Your task to perform on an android device: open app "Flipkart Online Shopping App" (install if not already installed) and enter user name: "fostered@gmail.com" and password: "negotiated" Image 0: 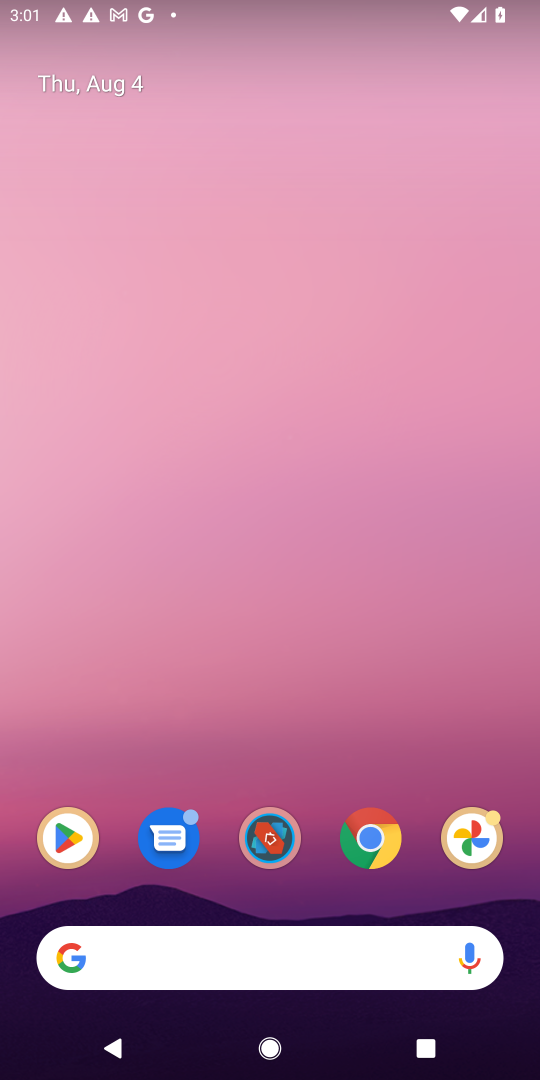
Step 0: click (71, 843)
Your task to perform on an android device: open app "Flipkart Online Shopping App" (install if not already installed) and enter user name: "fostered@gmail.com" and password: "negotiated" Image 1: 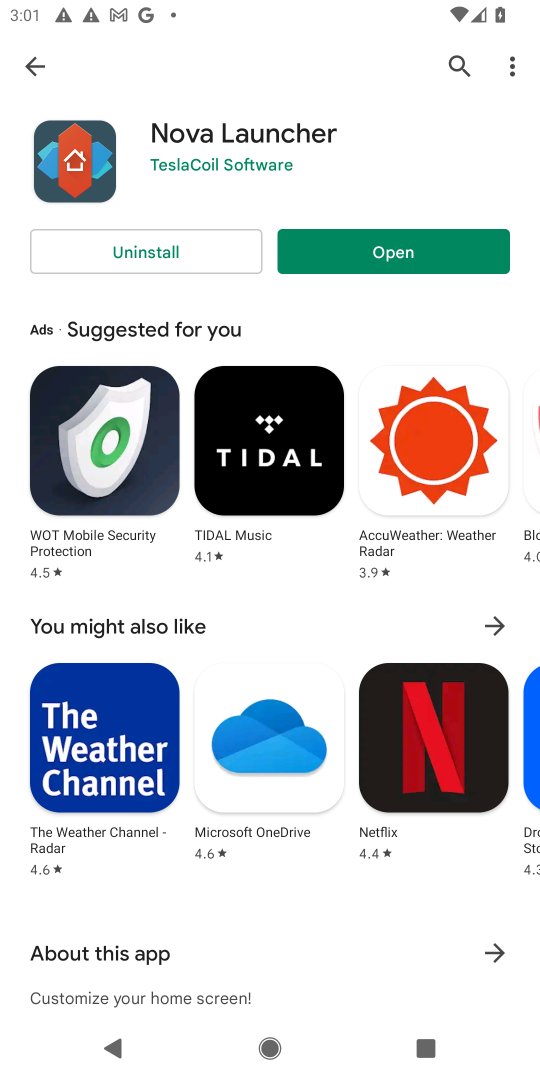
Step 1: click (446, 56)
Your task to perform on an android device: open app "Flipkart Online Shopping App" (install if not already installed) and enter user name: "fostered@gmail.com" and password: "negotiated" Image 2: 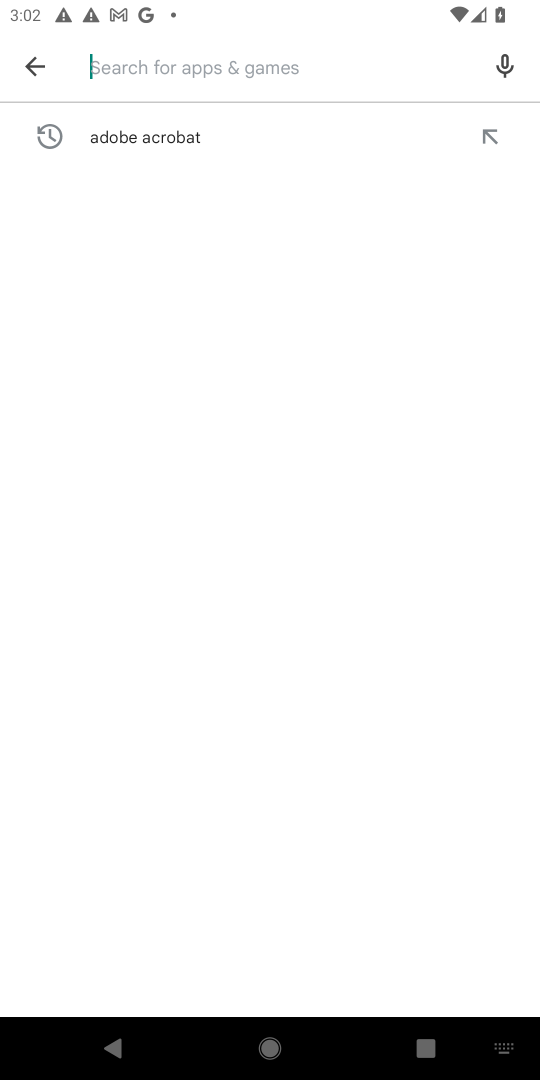
Step 2: type "flipkart"
Your task to perform on an android device: open app "Flipkart Online Shopping App" (install if not already installed) and enter user name: "fostered@gmail.com" and password: "negotiated" Image 3: 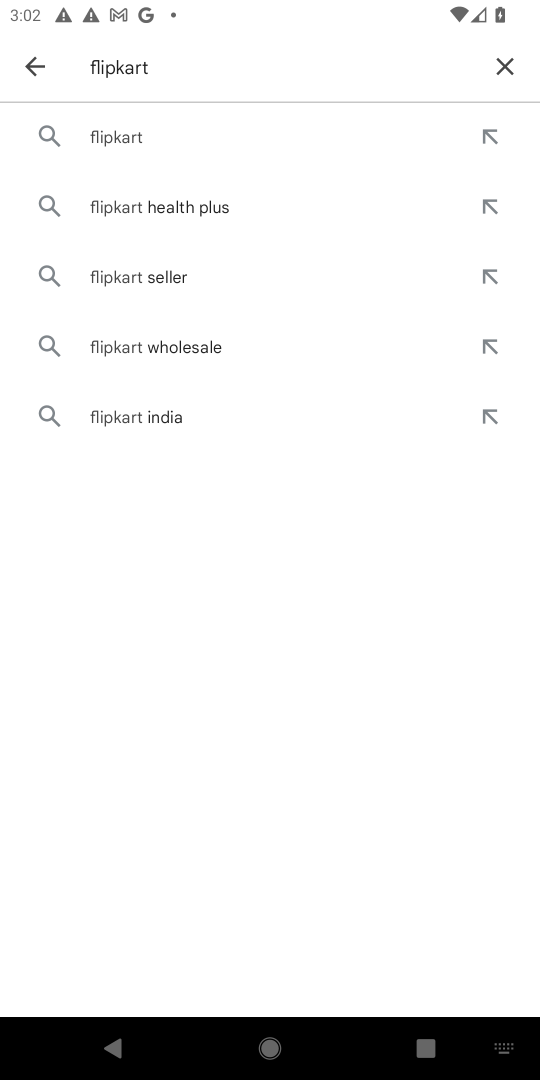
Step 3: click (214, 129)
Your task to perform on an android device: open app "Flipkart Online Shopping App" (install if not already installed) and enter user name: "fostered@gmail.com" and password: "negotiated" Image 4: 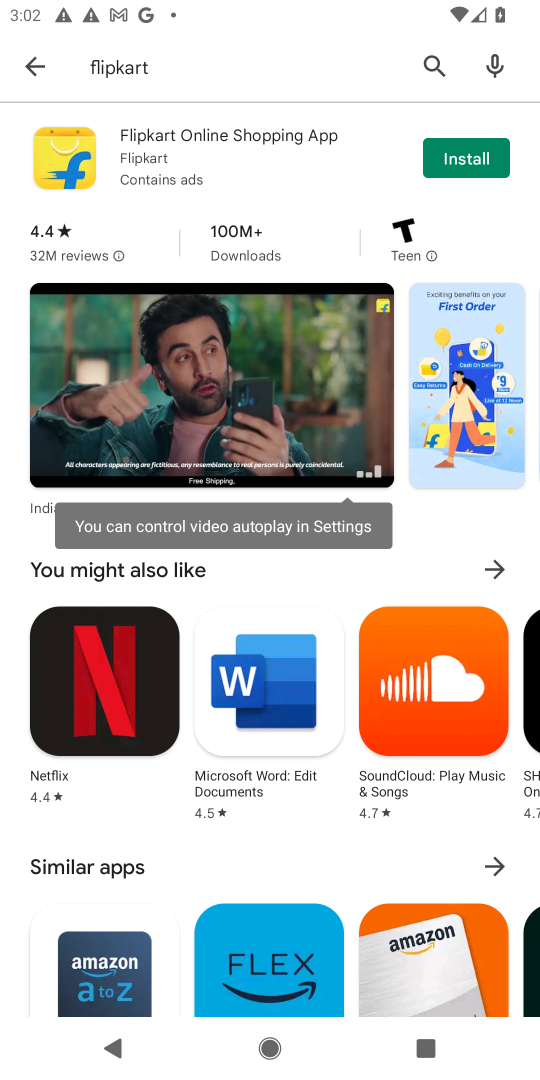
Step 4: click (496, 144)
Your task to perform on an android device: open app "Flipkart Online Shopping App" (install if not already installed) and enter user name: "fostered@gmail.com" and password: "negotiated" Image 5: 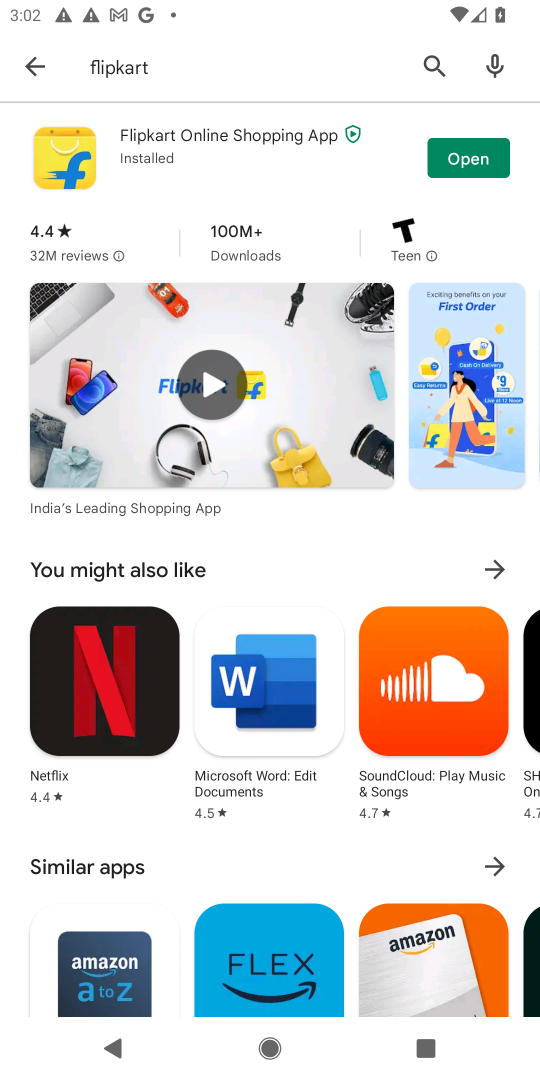
Step 5: click (496, 144)
Your task to perform on an android device: open app "Flipkart Online Shopping App" (install if not already installed) and enter user name: "fostered@gmail.com" and password: "negotiated" Image 6: 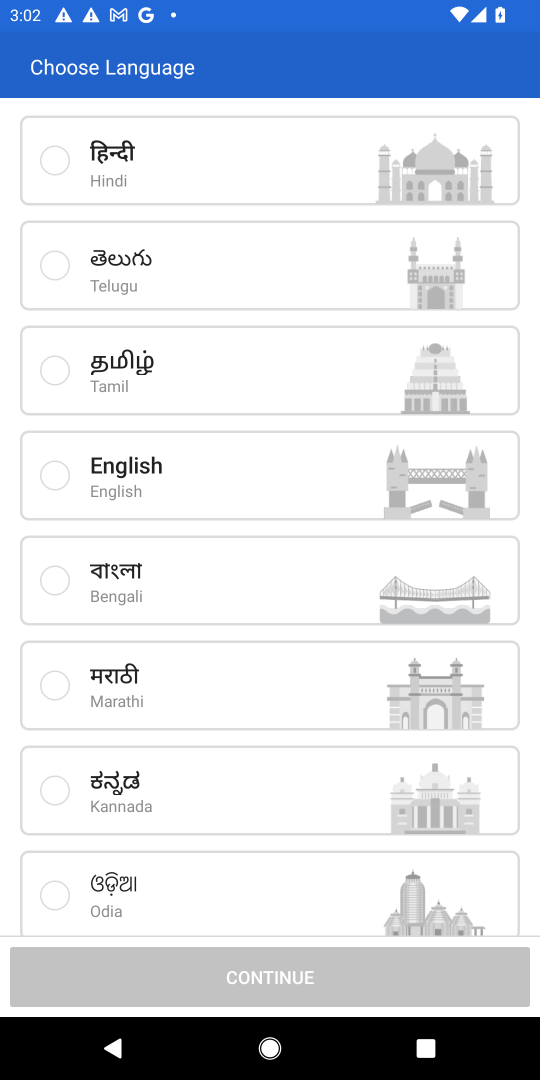
Step 6: task complete